Your task to perform on an android device: Go to eBay Image 0: 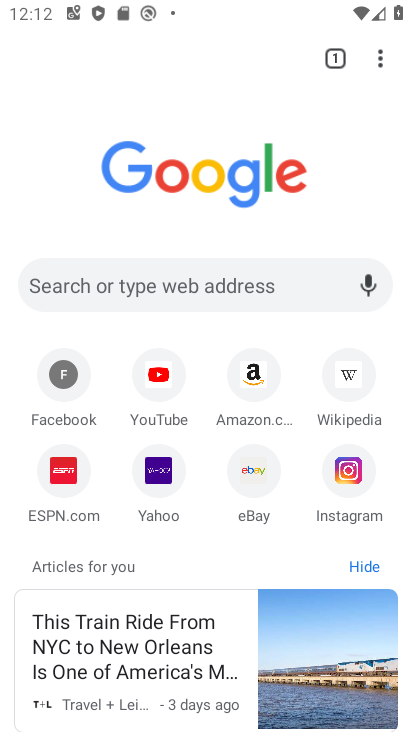
Step 0: click (274, 283)
Your task to perform on an android device: Go to eBay Image 1: 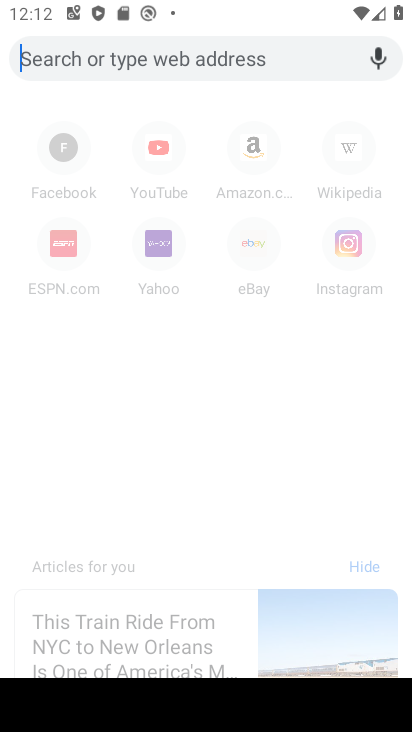
Step 1: type " eBay"
Your task to perform on an android device: Go to eBay Image 2: 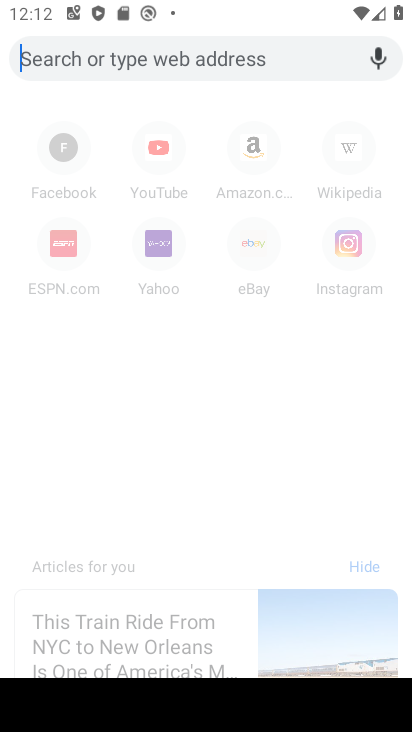
Step 2: click (228, 44)
Your task to perform on an android device: Go to eBay Image 3: 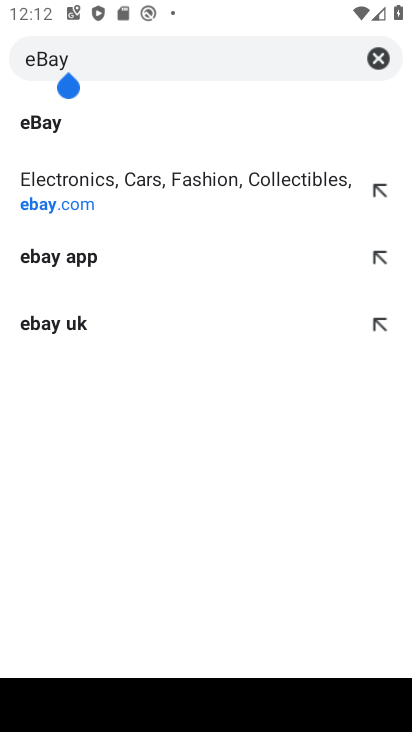
Step 3: click (62, 195)
Your task to perform on an android device: Go to eBay Image 4: 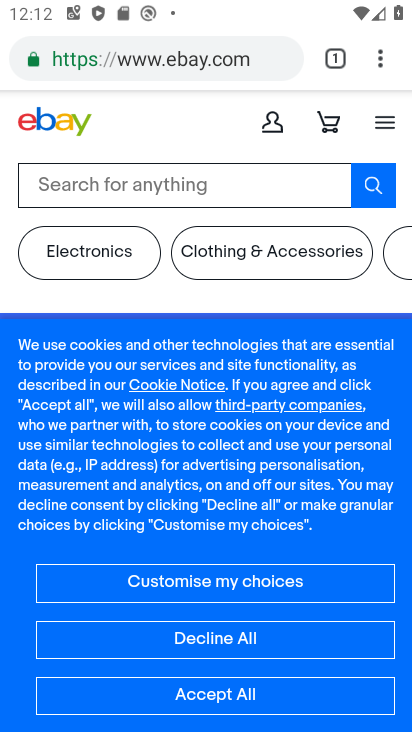
Step 4: task complete